Your task to perform on an android device: Open calendar and show me the first week of next month Image 0: 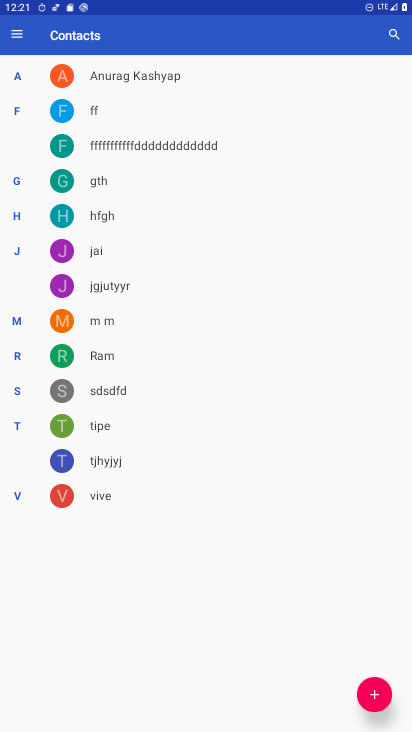
Step 0: press home button
Your task to perform on an android device: Open calendar and show me the first week of next month Image 1: 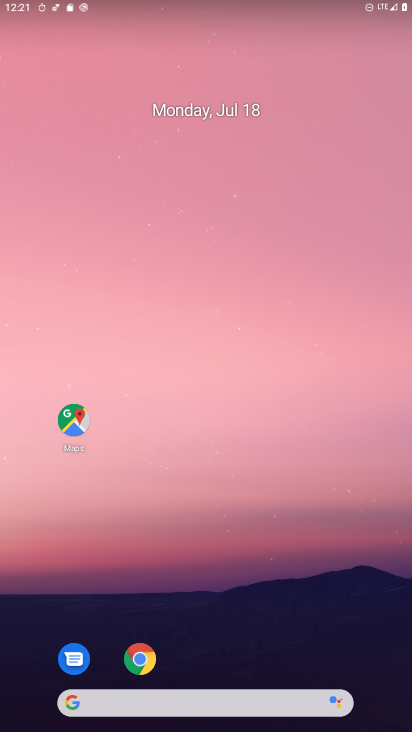
Step 1: drag from (192, 678) to (235, 264)
Your task to perform on an android device: Open calendar and show me the first week of next month Image 2: 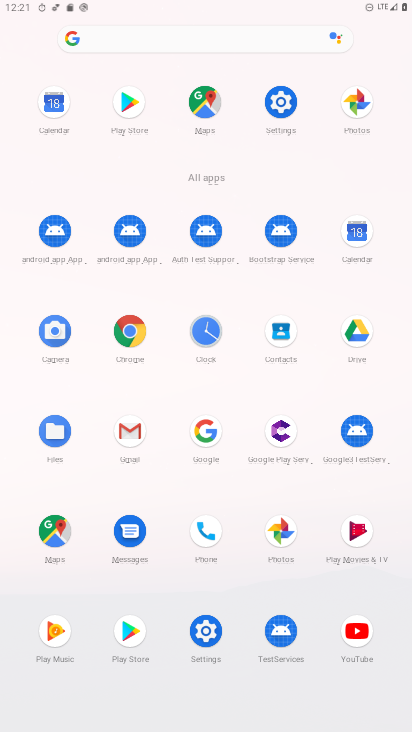
Step 2: click (362, 236)
Your task to perform on an android device: Open calendar and show me the first week of next month Image 3: 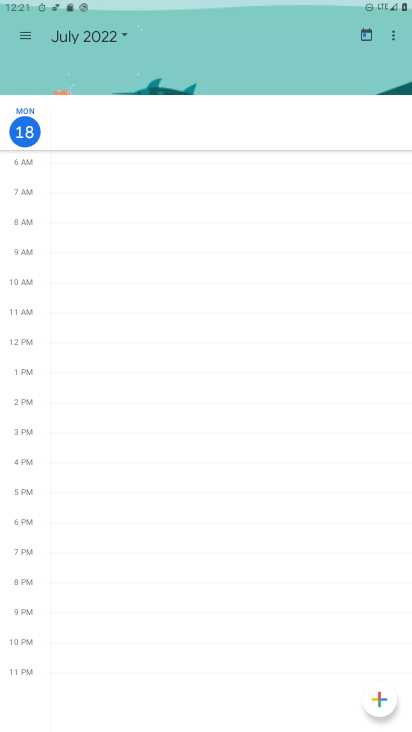
Step 3: click (9, 39)
Your task to perform on an android device: Open calendar and show me the first week of next month Image 4: 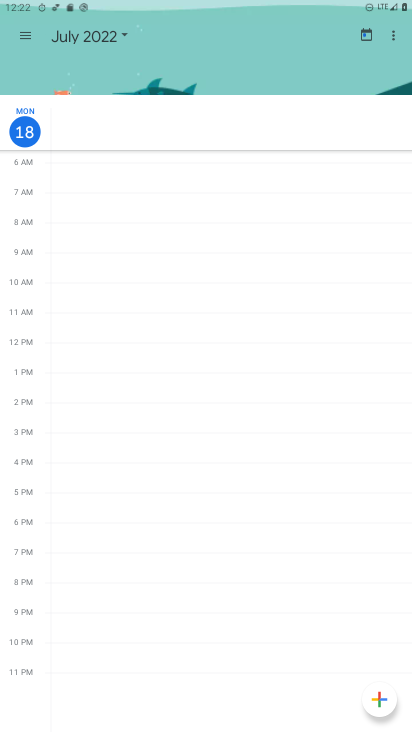
Step 4: click (25, 40)
Your task to perform on an android device: Open calendar and show me the first week of next month Image 5: 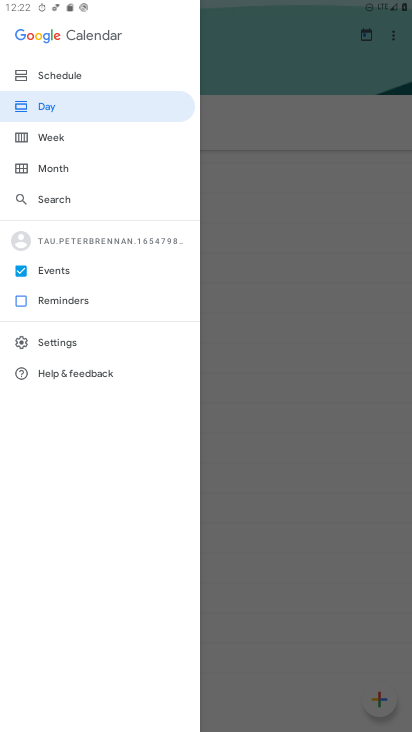
Step 5: click (61, 301)
Your task to perform on an android device: Open calendar and show me the first week of next month Image 6: 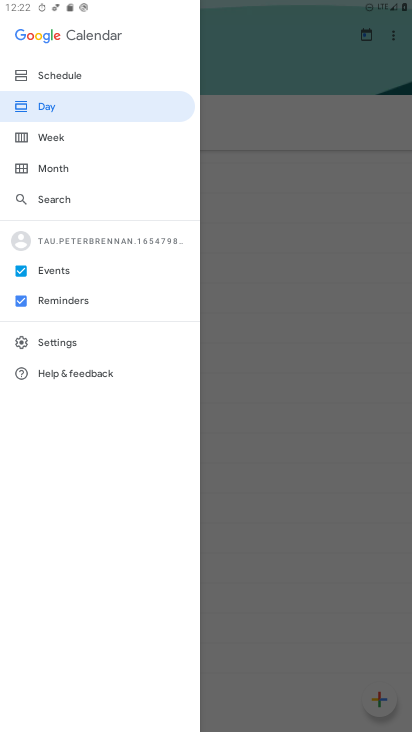
Step 6: click (50, 141)
Your task to perform on an android device: Open calendar and show me the first week of next month Image 7: 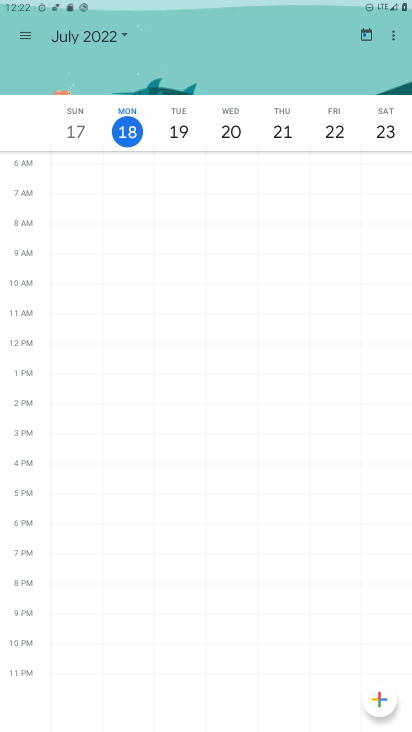
Step 7: task complete